Your task to perform on an android device: When is my next appointment? Image 0: 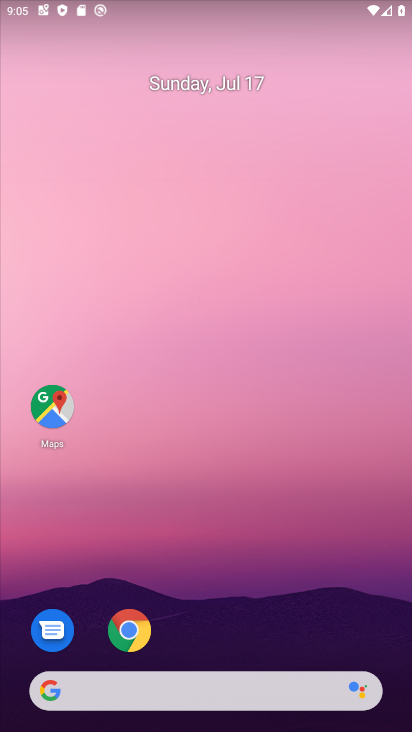
Step 0: drag from (326, 612) to (340, 79)
Your task to perform on an android device: When is my next appointment? Image 1: 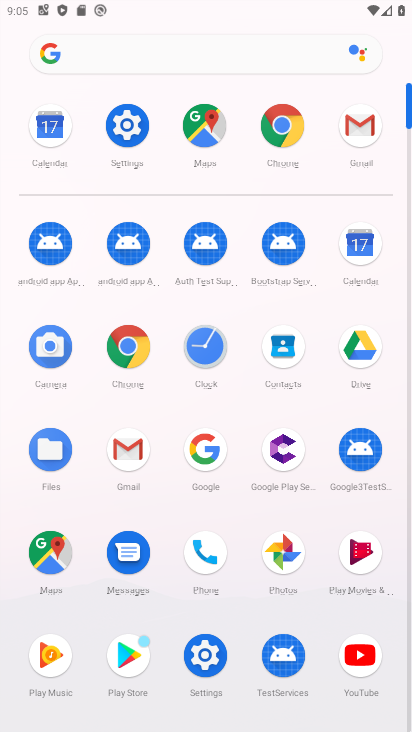
Step 1: click (363, 248)
Your task to perform on an android device: When is my next appointment? Image 2: 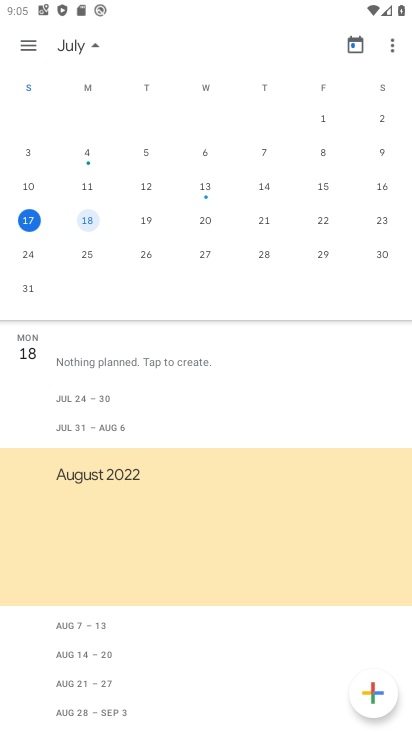
Step 2: task complete